Your task to perform on an android device: Search for Mexican restaurants on Maps Image 0: 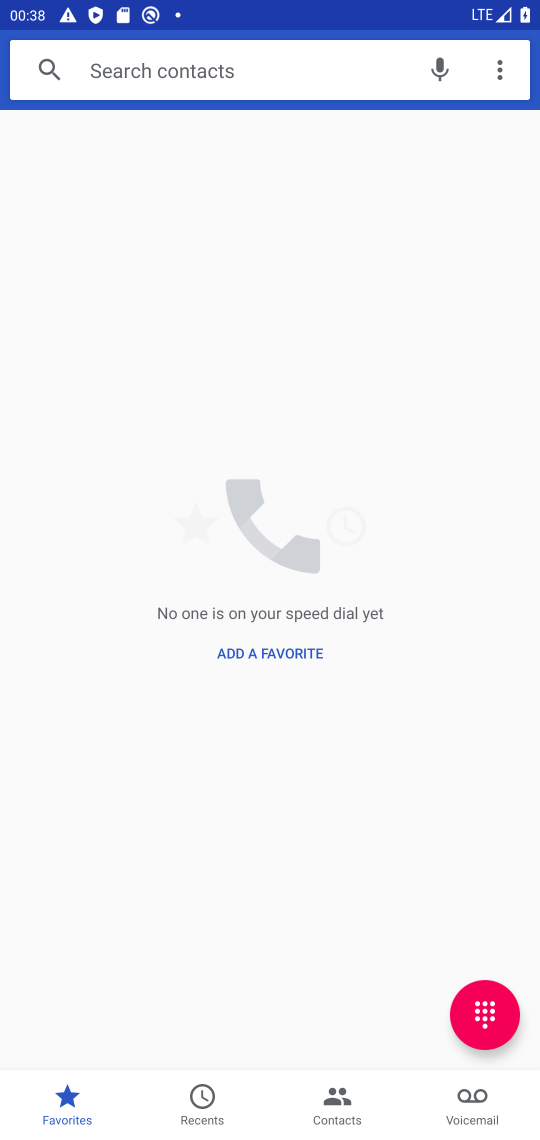
Step 0: press home button
Your task to perform on an android device: Search for Mexican restaurants on Maps Image 1: 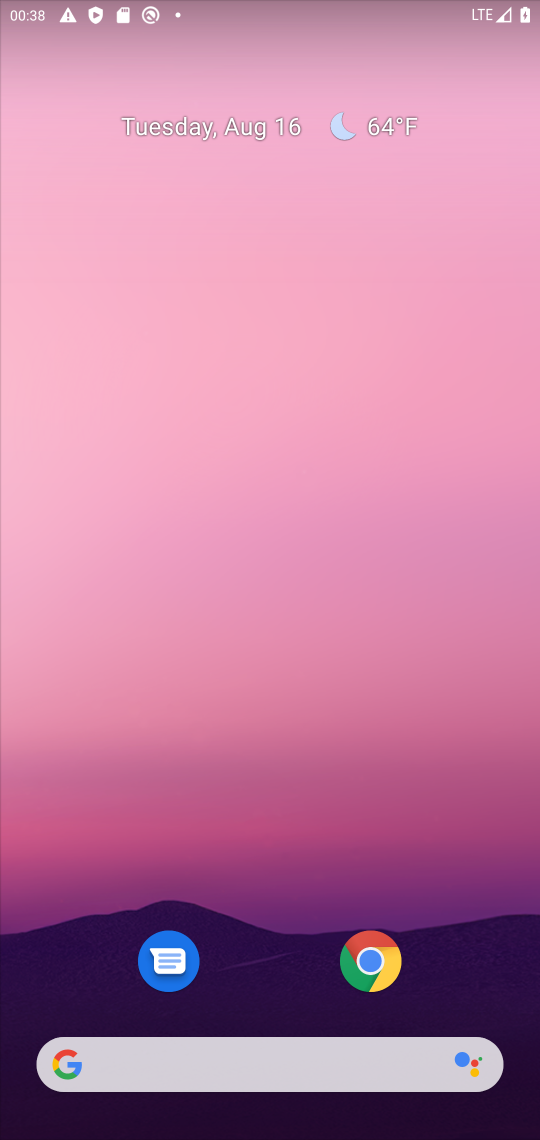
Step 1: drag from (280, 971) to (243, 602)
Your task to perform on an android device: Search for Mexican restaurants on Maps Image 2: 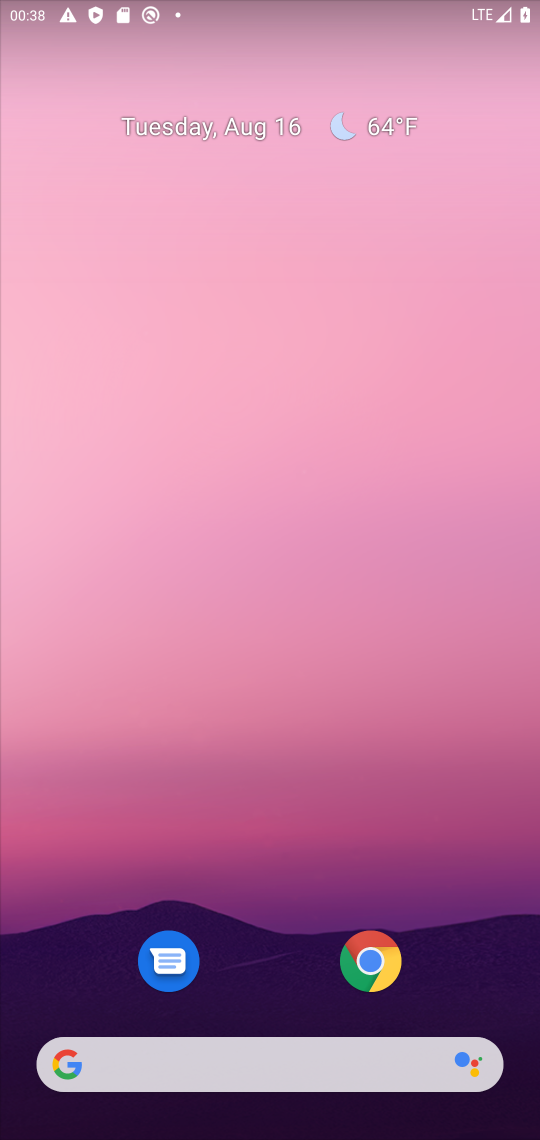
Step 2: drag from (303, 923) to (200, 27)
Your task to perform on an android device: Search for Mexican restaurants on Maps Image 3: 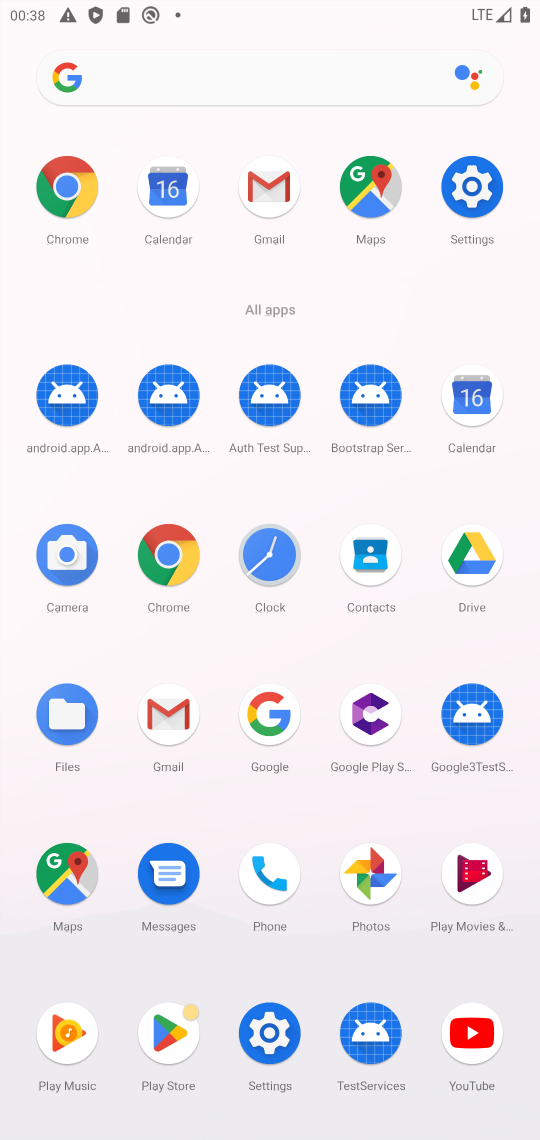
Step 3: click (51, 203)
Your task to perform on an android device: Search for Mexican restaurants on Maps Image 4: 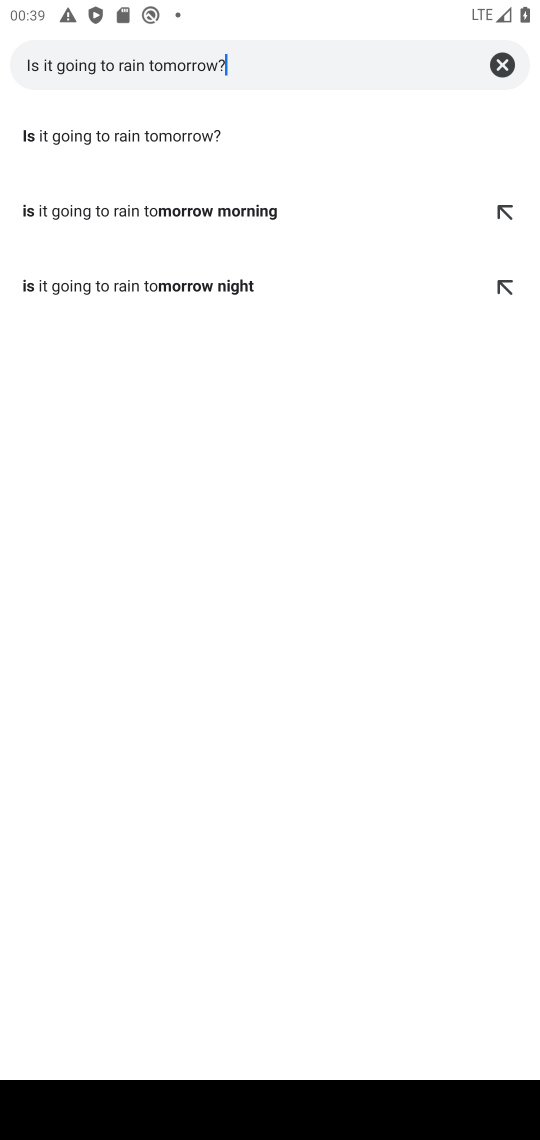
Step 4: press home button
Your task to perform on an android device: Search for Mexican restaurants on Maps Image 5: 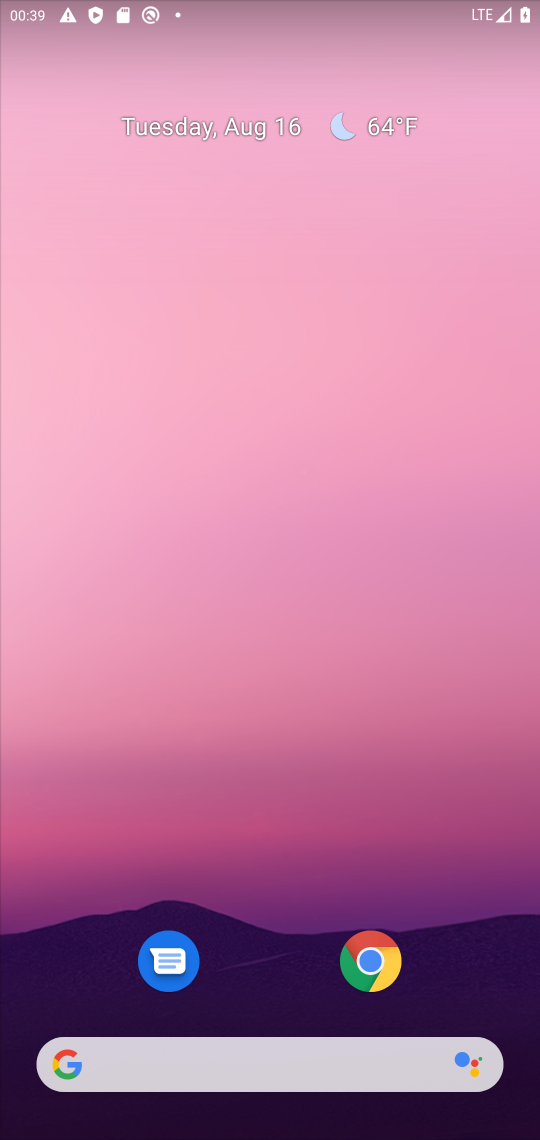
Step 5: drag from (276, 917) to (345, 261)
Your task to perform on an android device: Search for Mexican restaurants on Maps Image 6: 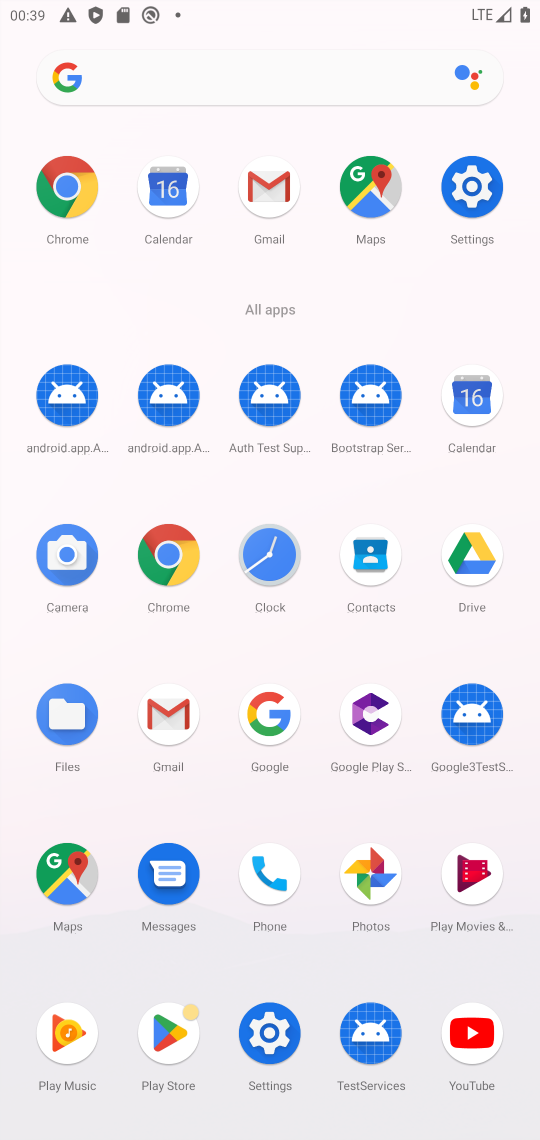
Step 6: click (396, 202)
Your task to perform on an android device: Search for Mexican restaurants on Maps Image 7: 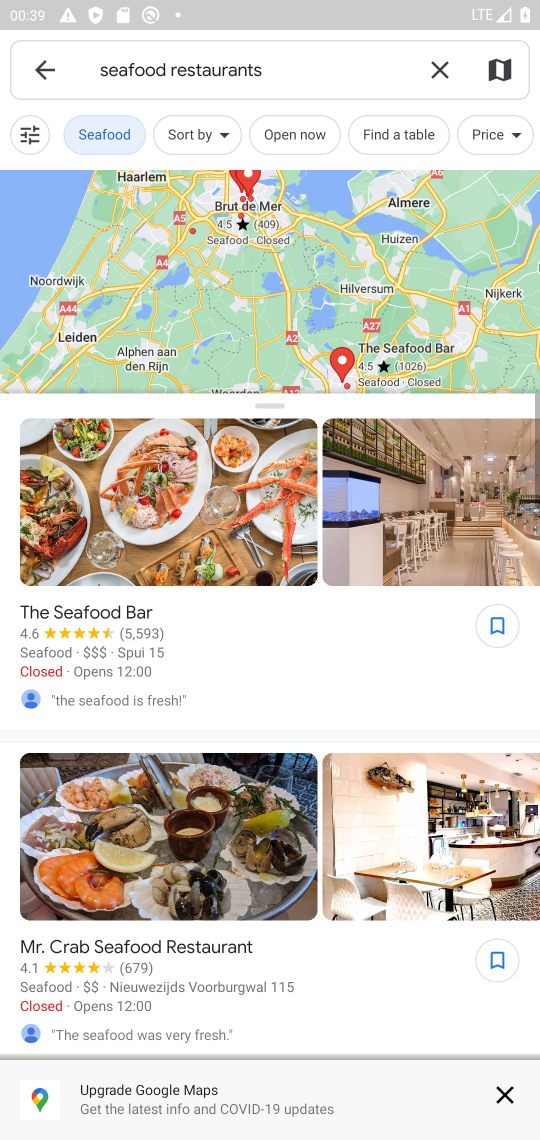
Step 7: click (439, 68)
Your task to perform on an android device: Search for Mexican restaurants on Maps Image 8: 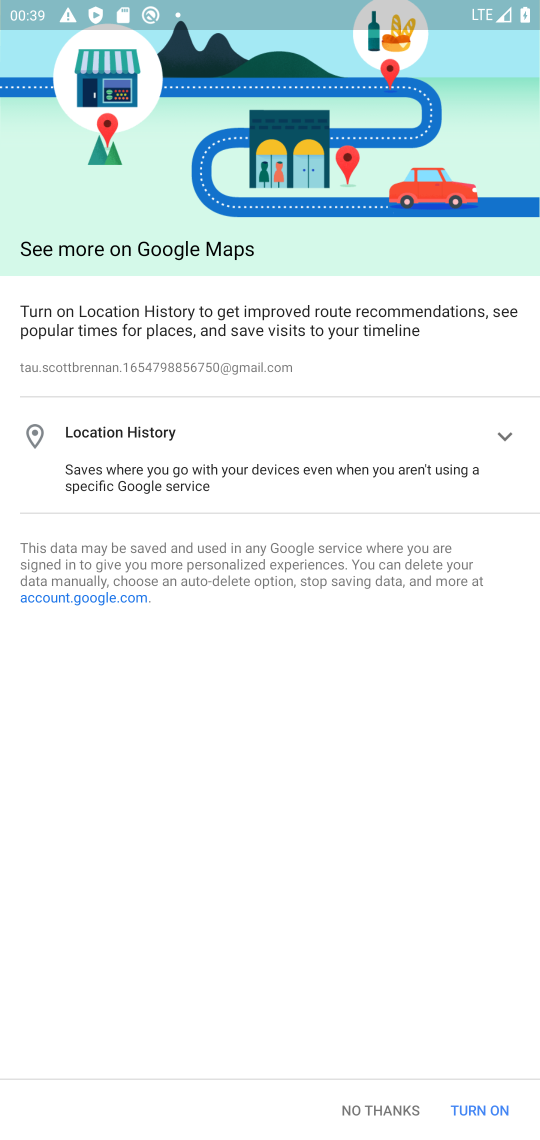
Step 8: click (373, 1110)
Your task to perform on an android device: Search for Mexican restaurants on Maps Image 9: 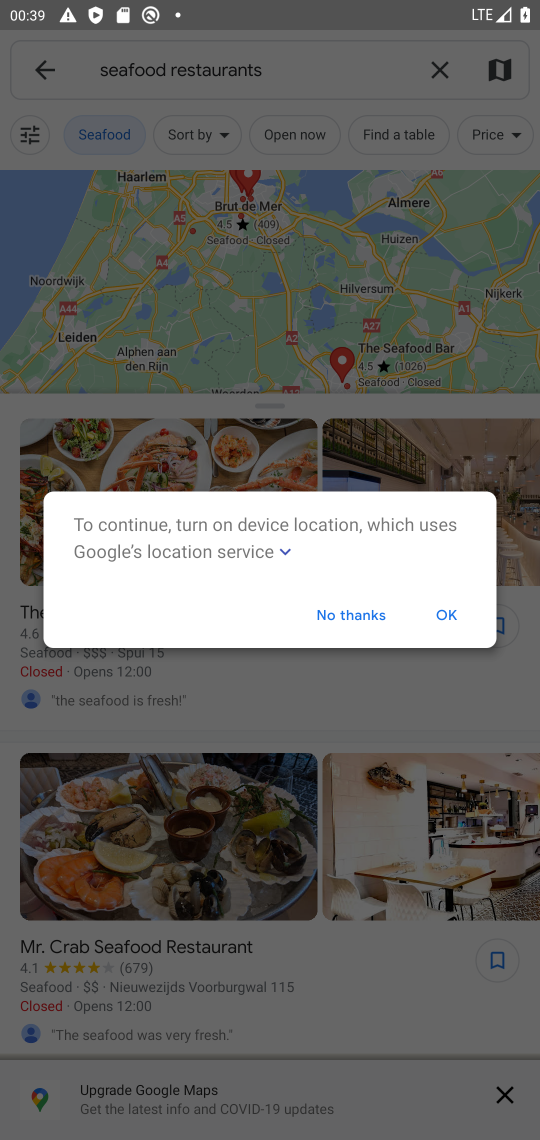
Step 9: click (445, 623)
Your task to perform on an android device: Search for Mexican restaurants on Maps Image 10: 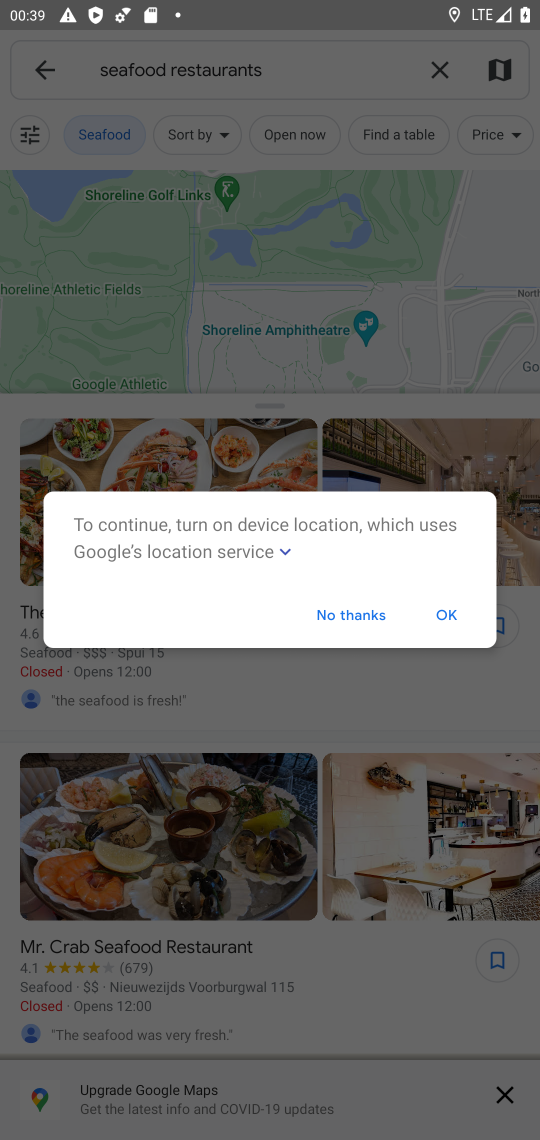
Step 10: click (332, 612)
Your task to perform on an android device: Search for Mexican restaurants on Maps Image 11: 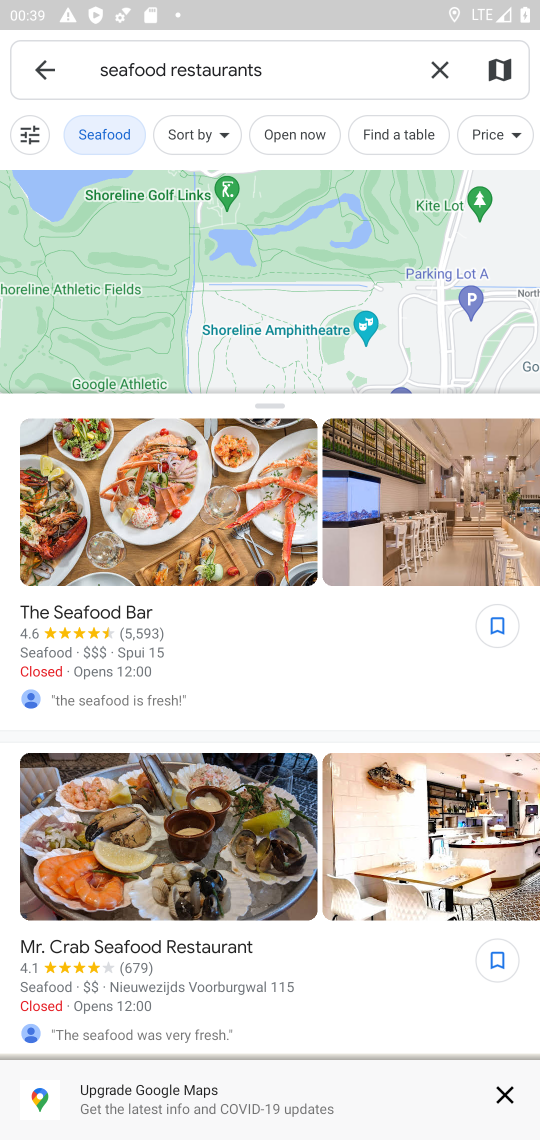
Step 11: click (436, 74)
Your task to perform on an android device: Search for Mexican restaurants on Maps Image 12: 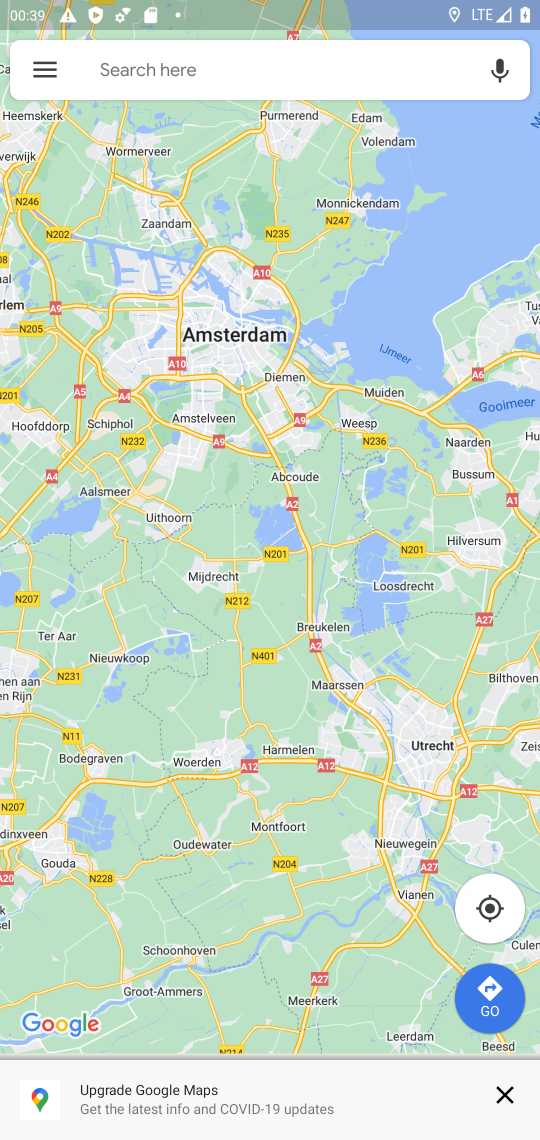
Step 12: type "Mexican restaurants"
Your task to perform on an android device: Search for Mexican restaurants on Maps Image 13: 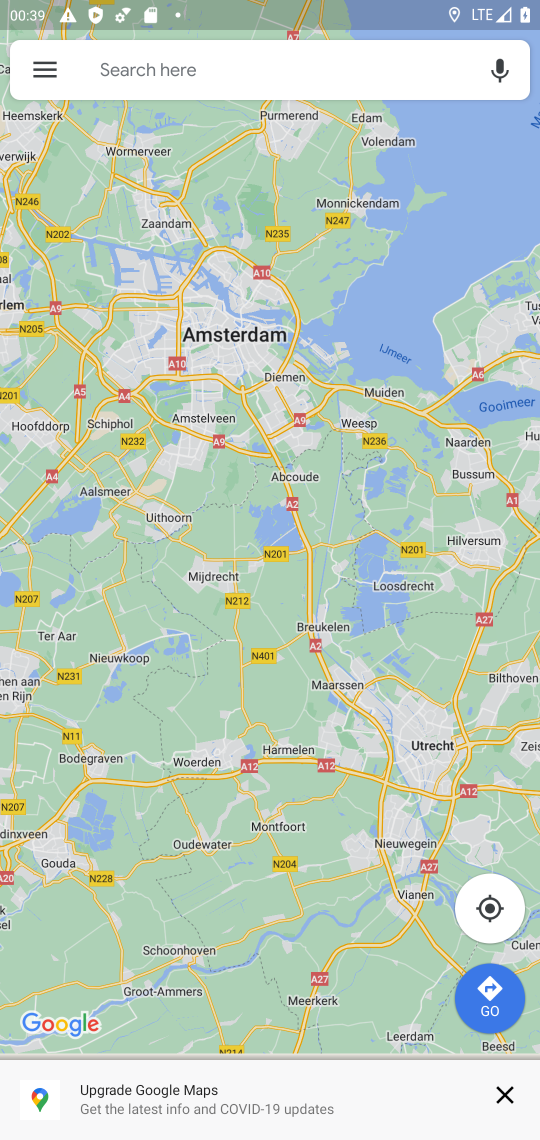
Step 13: click (202, 65)
Your task to perform on an android device: Search for Mexican restaurants on Maps Image 14: 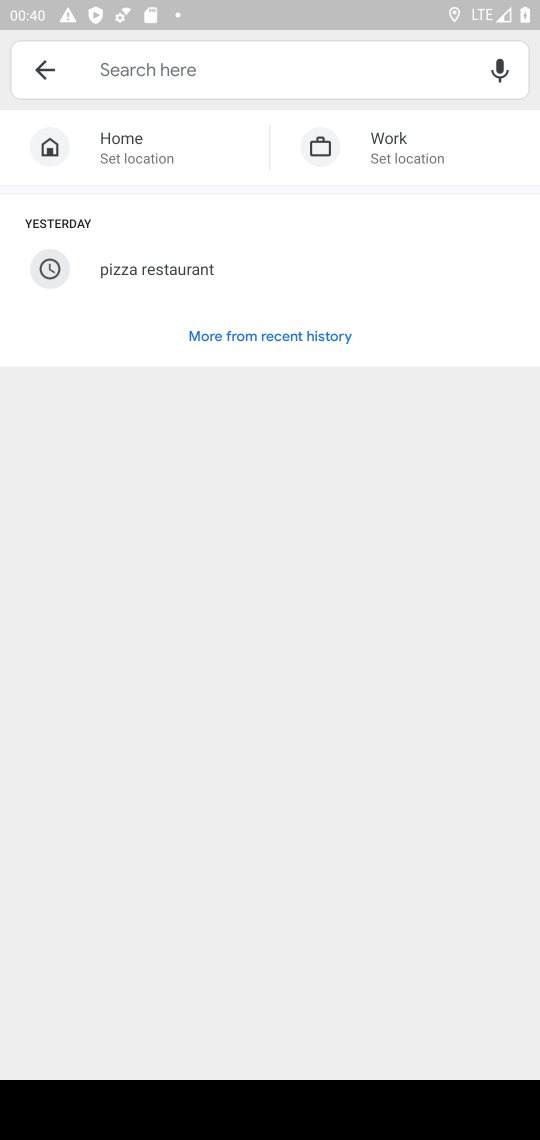
Step 14: click (202, 65)
Your task to perform on an android device: Search for Mexican restaurants on Maps Image 15: 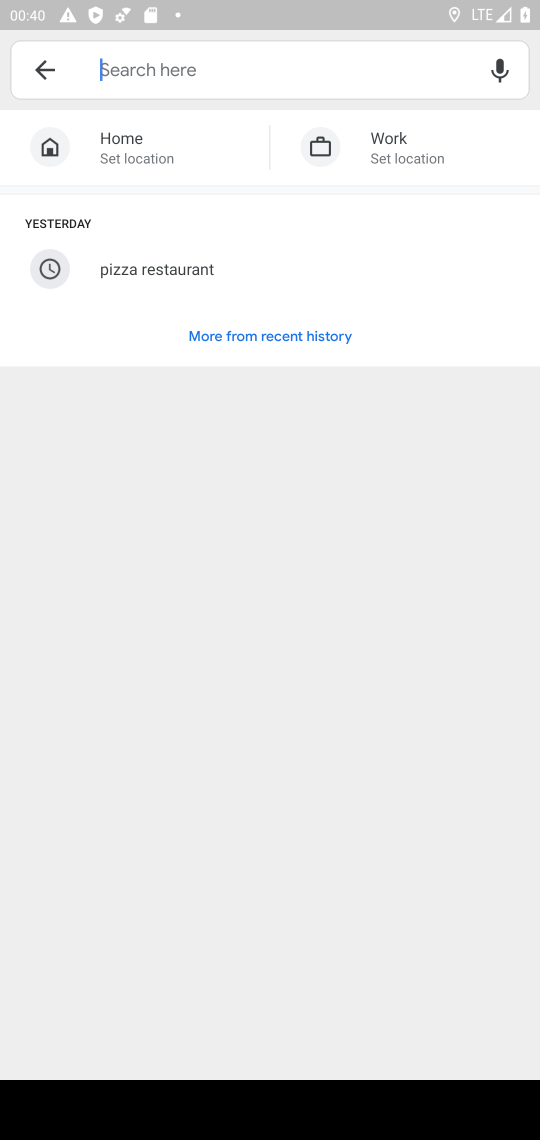
Step 15: click (202, 65)
Your task to perform on an android device: Search for Mexican restaurants on Maps Image 16: 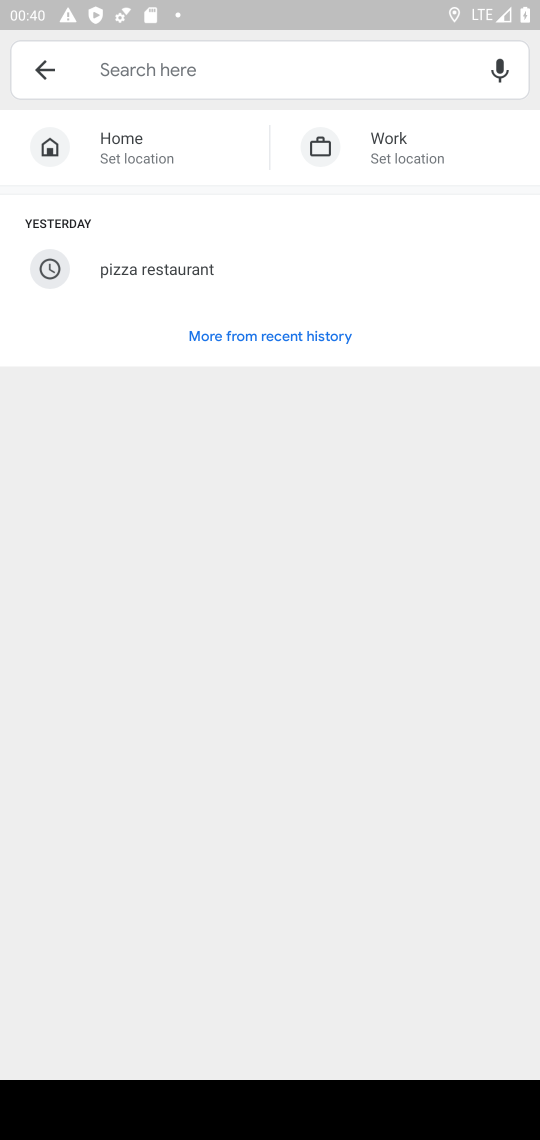
Step 16: type "Mexican restaurants"
Your task to perform on an android device: Search for Mexican restaurants on Maps Image 17: 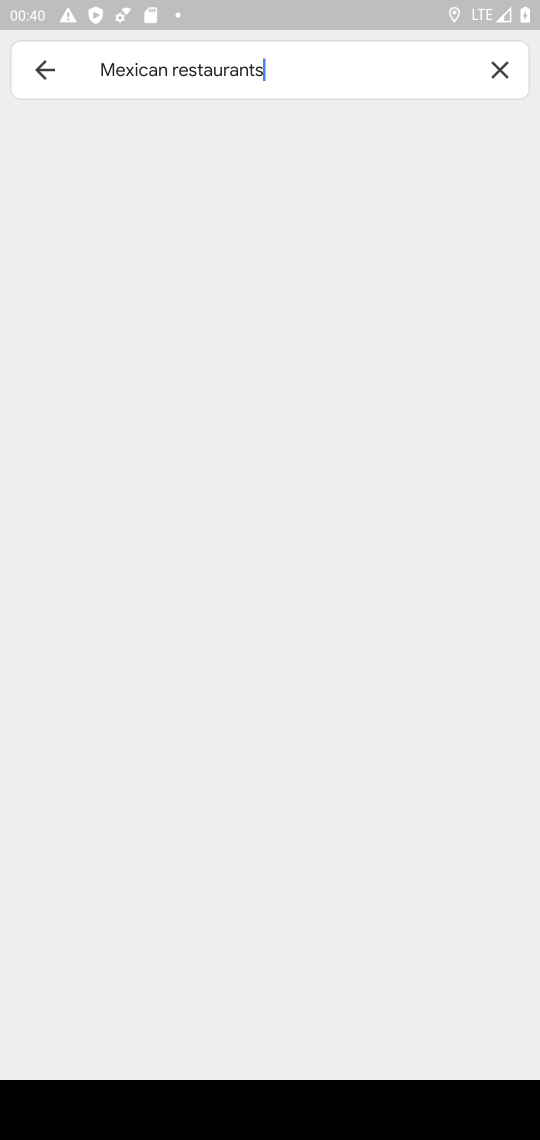
Step 17: type ""
Your task to perform on an android device: Search for Mexican restaurants on Maps Image 18: 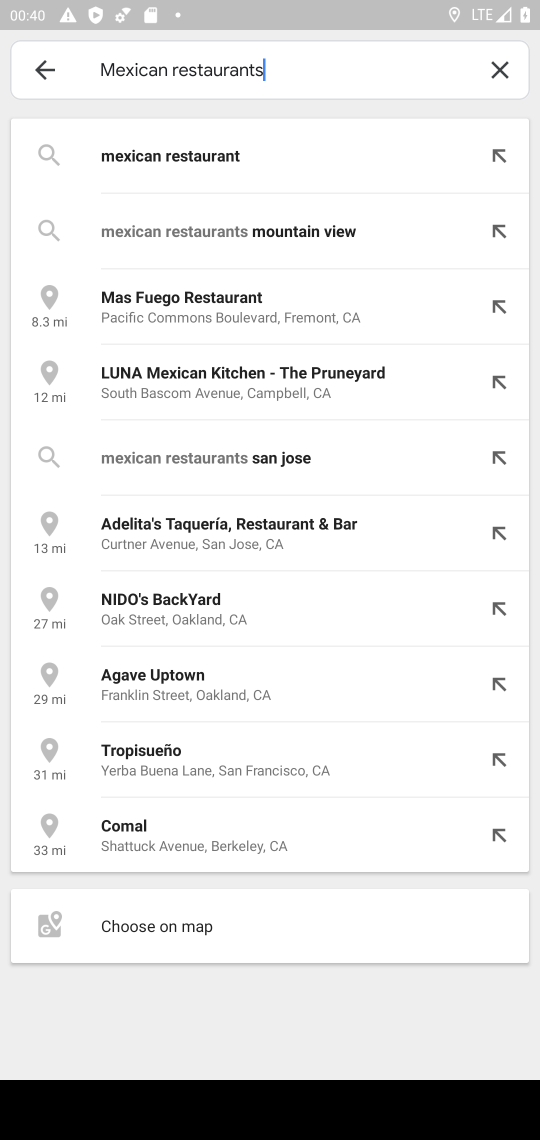
Step 18: click (177, 156)
Your task to perform on an android device: Search for Mexican restaurants on Maps Image 19: 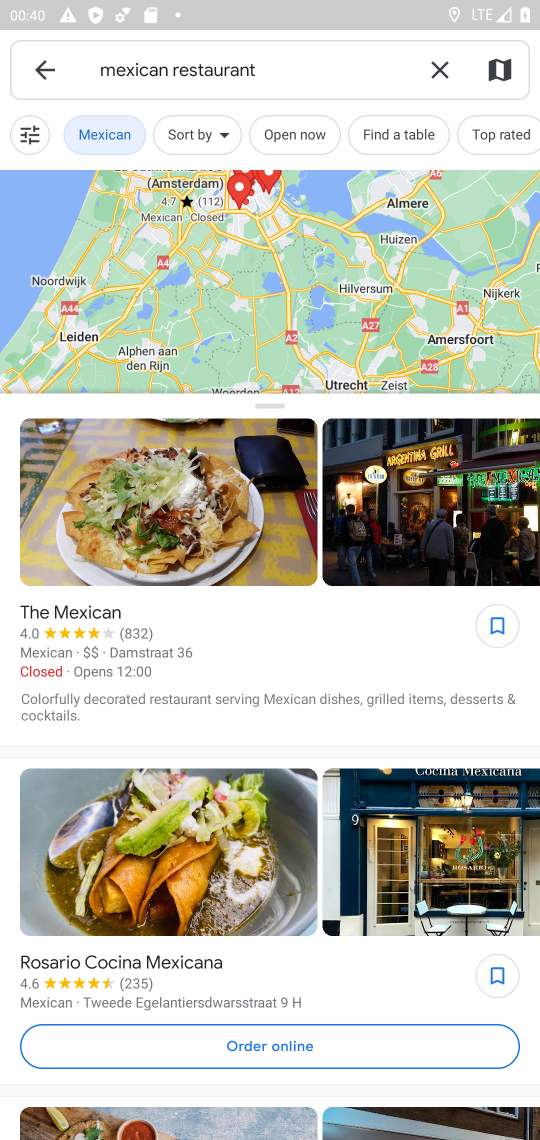
Step 19: task complete